Your task to perform on an android device: Search for pizza restaurants on Maps Image 0: 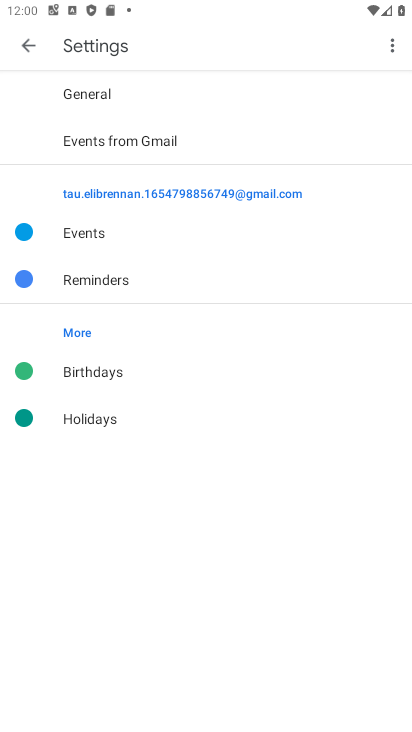
Step 0: press home button
Your task to perform on an android device: Search for pizza restaurants on Maps Image 1: 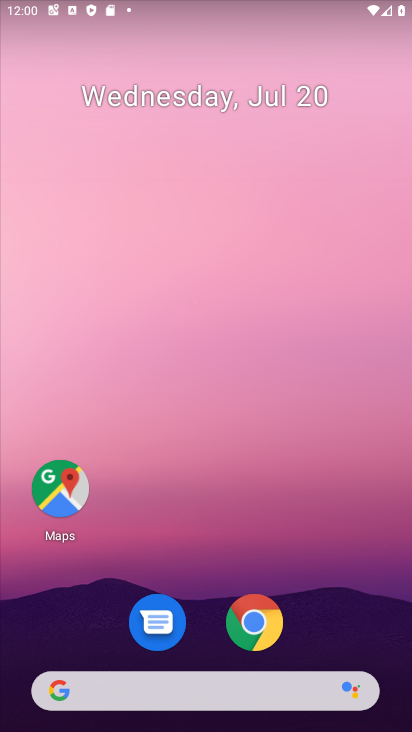
Step 1: click (68, 483)
Your task to perform on an android device: Search for pizza restaurants on Maps Image 2: 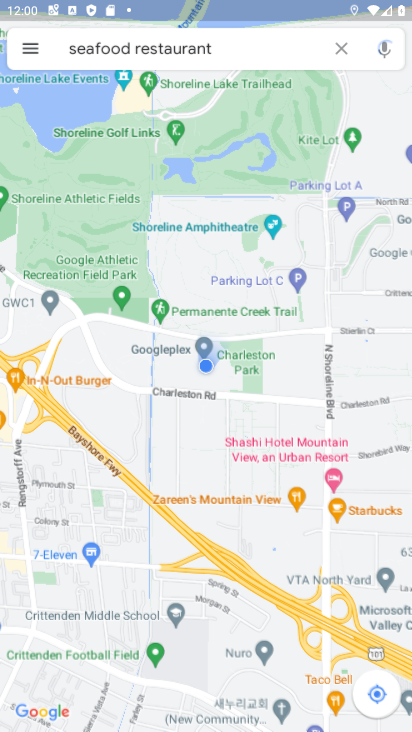
Step 2: click (252, 49)
Your task to perform on an android device: Search for pizza restaurants on Maps Image 3: 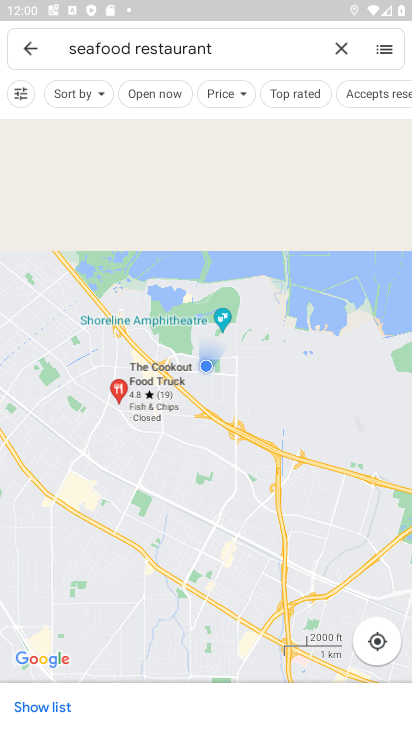
Step 3: click (341, 39)
Your task to perform on an android device: Search for pizza restaurants on Maps Image 4: 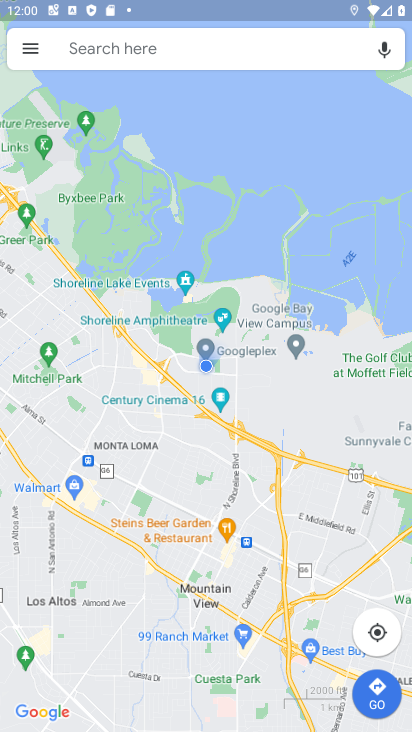
Step 4: click (215, 55)
Your task to perform on an android device: Search for pizza restaurants on Maps Image 5: 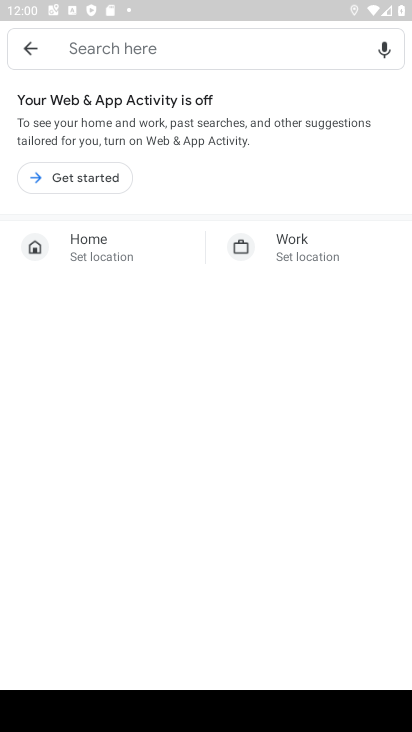
Step 5: type "pizza restaurants"
Your task to perform on an android device: Search for pizza restaurants on Maps Image 6: 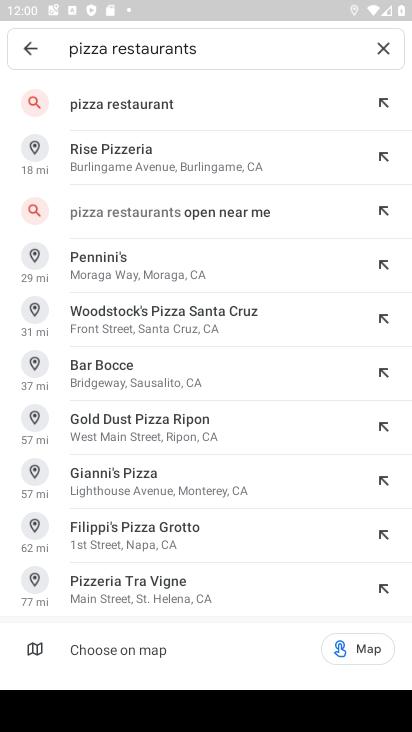
Step 6: click (202, 109)
Your task to perform on an android device: Search for pizza restaurants on Maps Image 7: 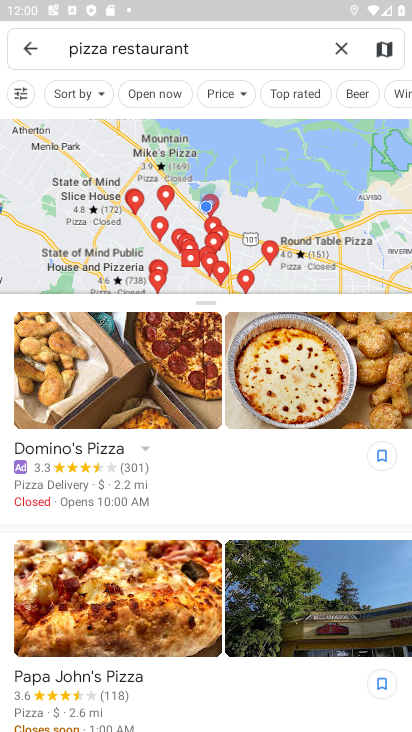
Step 7: task complete